Your task to perform on an android device: turn on notifications settings in the gmail app Image 0: 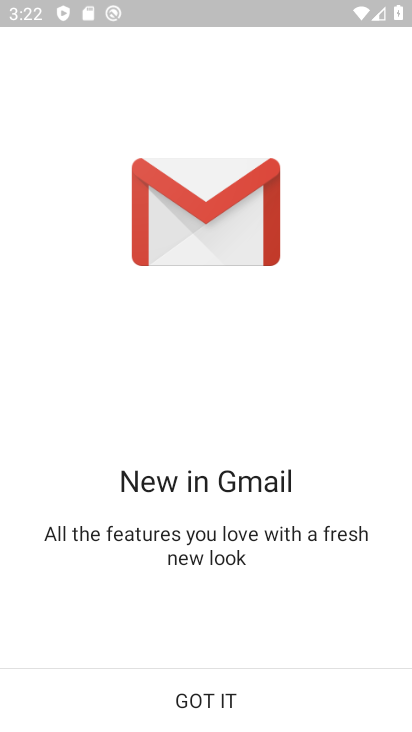
Step 0: click (253, 703)
Your task to perform on an android device: turn on notifications settings in the gmail app Image 1: 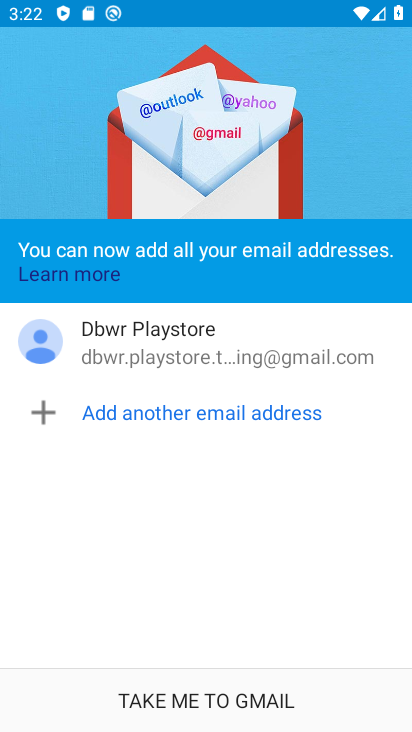
Step 1: click (254, 703)
Your task to perform on an android device: turn on notifications settings in the gmail app Image 2: 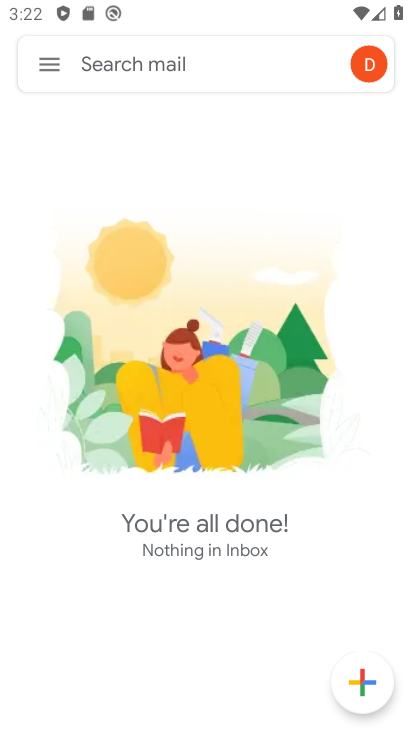
Step 2: click (33, 72)
Your task to perform on an android device: turn on notifications settings in the gmail app Image 3: 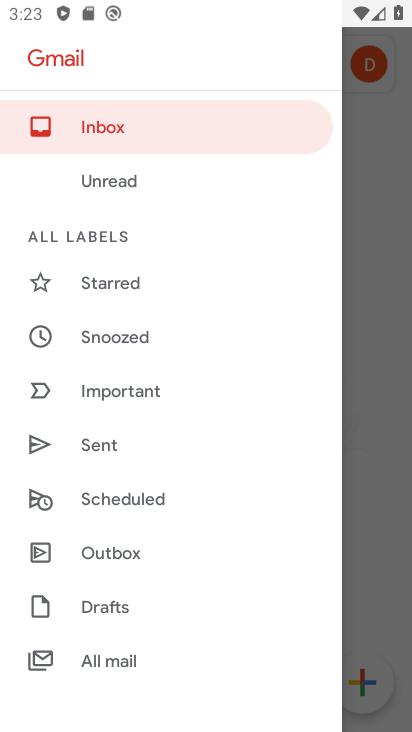
Step 3: drag from (129, 592) to (214, 107)
Your task to perform on an android device: turn on notifications settings in the gmail app Image 4: 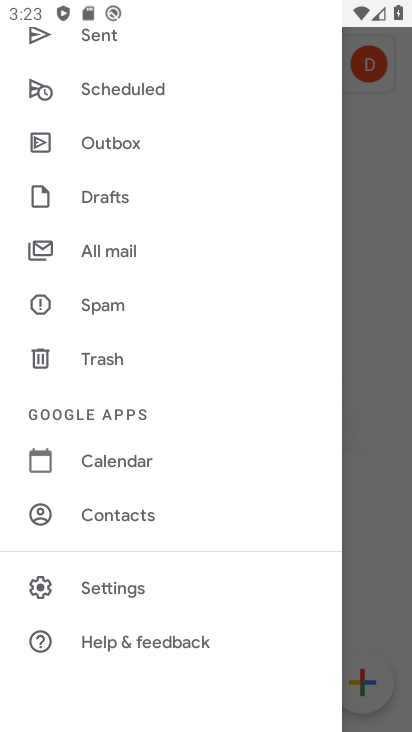
Step 4: click (143, 599)
Your task to perform on an android device: turn on notifications settings in the gmail app Image 5: 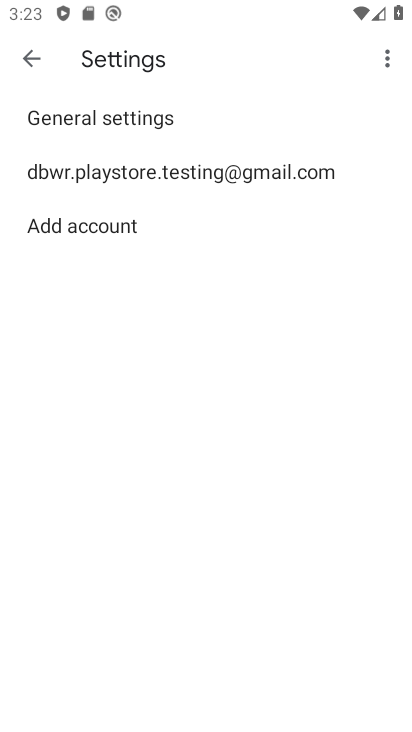
Step 5: click (133, 117)
Your task to perform on an android device: turn on notifications settings in the gmail app Image 6: 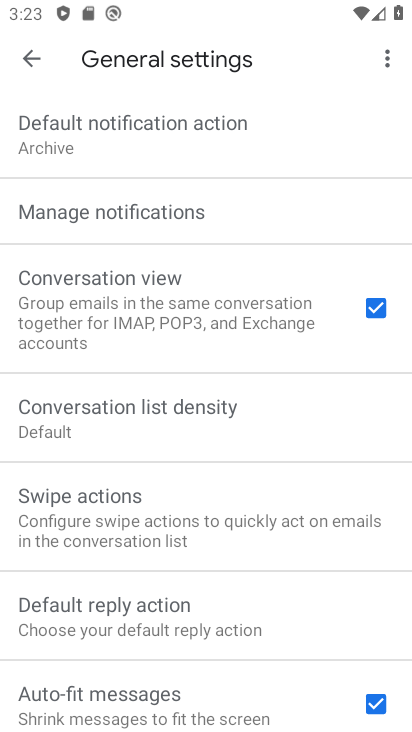
Step 6: click (146, 206)
Your task to perform on an android device: turn on notifications settings in the gmail app Image 7: 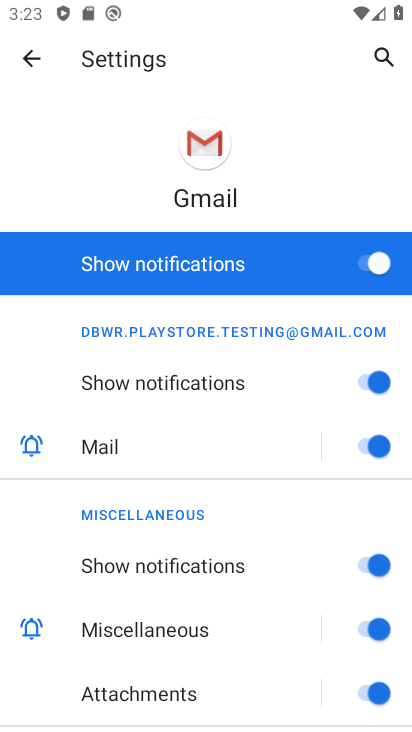
Step 7: task complete